Your task to perform on an android device: toggle show notifications on the lock screen Image 0: 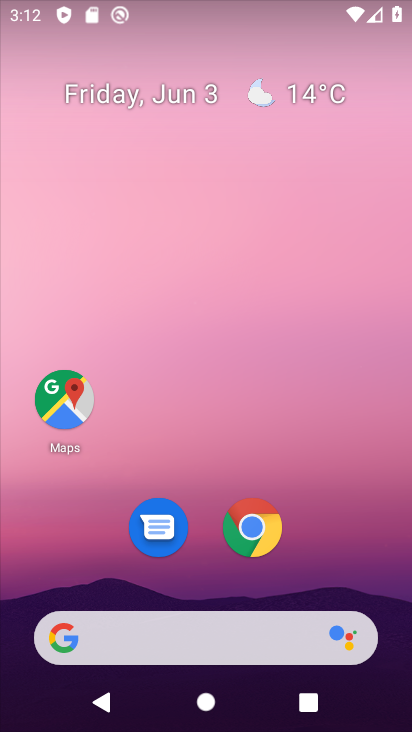
Step 0: click (349, 4)
Your task to perform on an android device: toggle show notifications on the lock screen Image 1: 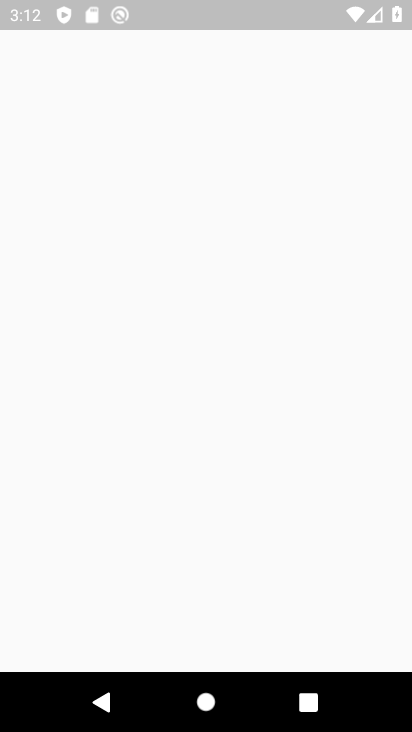
Step 1: press home button
Your task to perform on an android device: toggle show notifications on the lock screen Image 2: 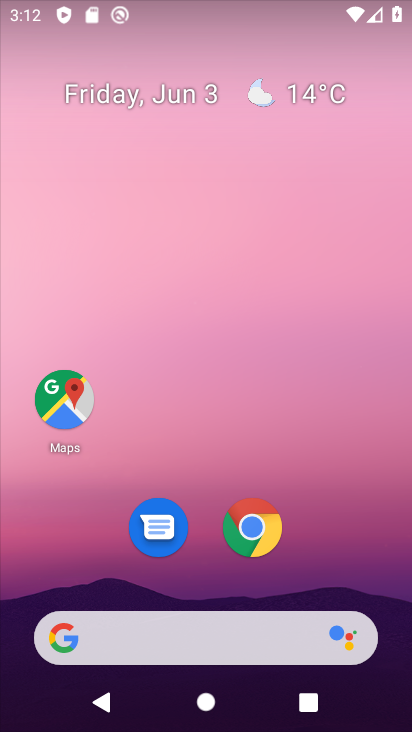
Step 2: drag from (327, 555) to (213, 79)
Your task to perform on an android device: toggle show notifications on the lock screen Image 3: 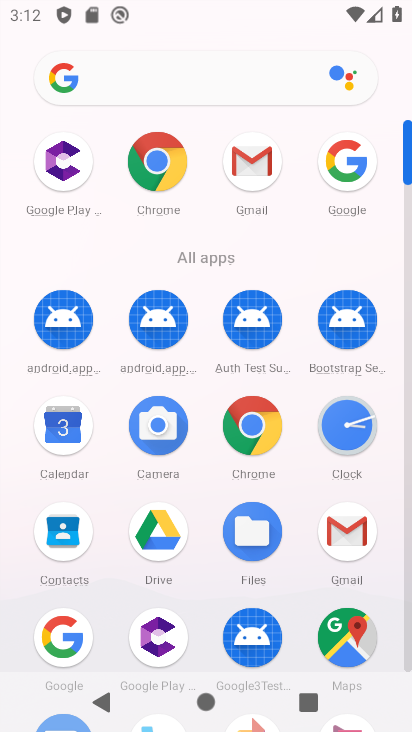
Step 3: drag from (301, 270) to (318, 68)
Your task to perform on an android device: toggle show notifications on the lock screen Image 4: 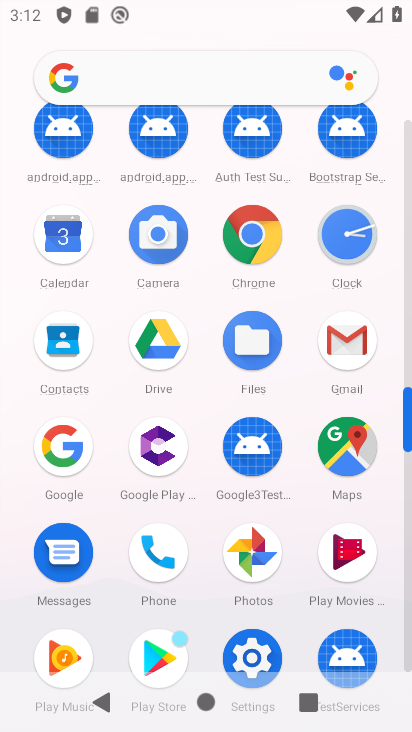
Step 4: click (248, 655)
Your task to perform on an android device: toggle show notifications on the lock screen Image 5: 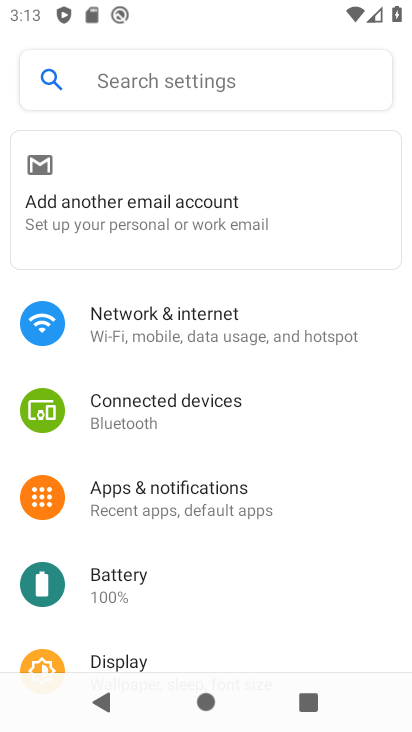
Step 5: click (175, 488)
Your task to perform on an android device: toggle show notifications on the lock screen Image 6: 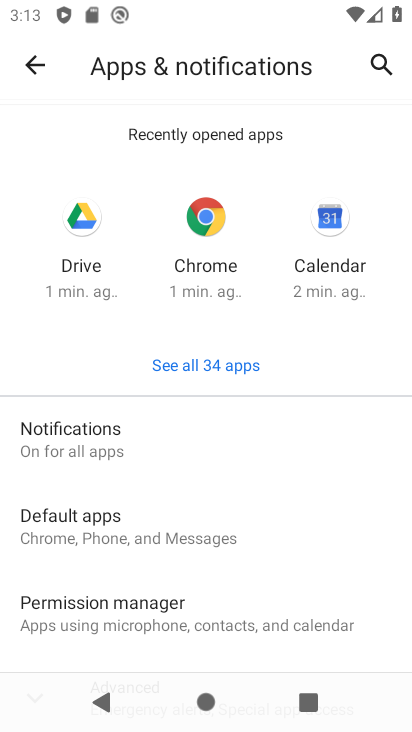
Step 6: click (77, 448)
Your task to perform on an android device: toggle show notifications on the lock screen Image 7: 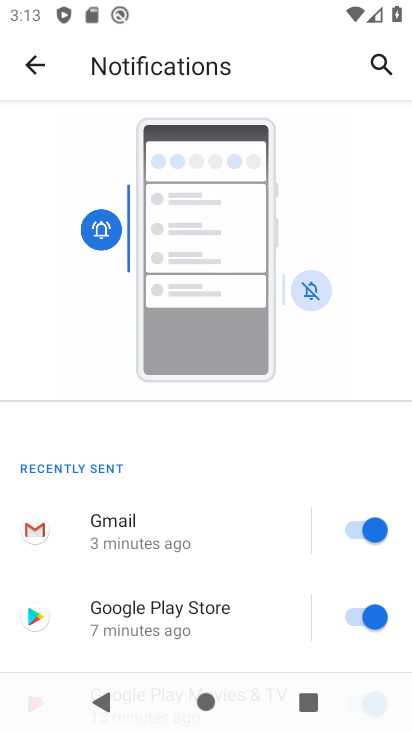
Step 7: drag from (202, 496) to (267, 330)
Your task to perform on an android device: toggle show notifications on the lock screen Image 8: 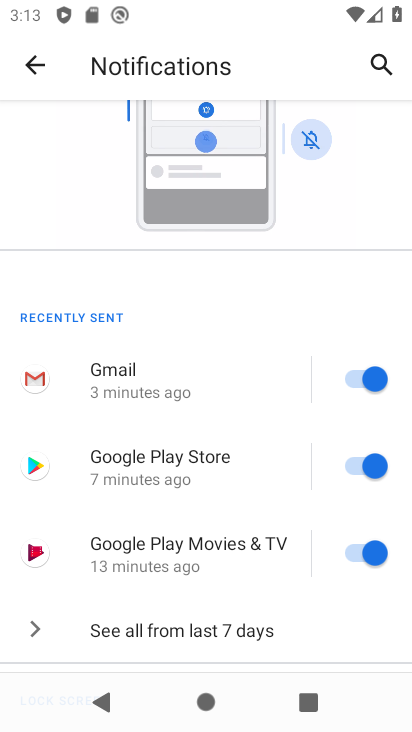
Step 8: drag from (168, 503) to (249, 397)
Your task to perform on an android device: toggle show notifications on the lock screen Image 9: 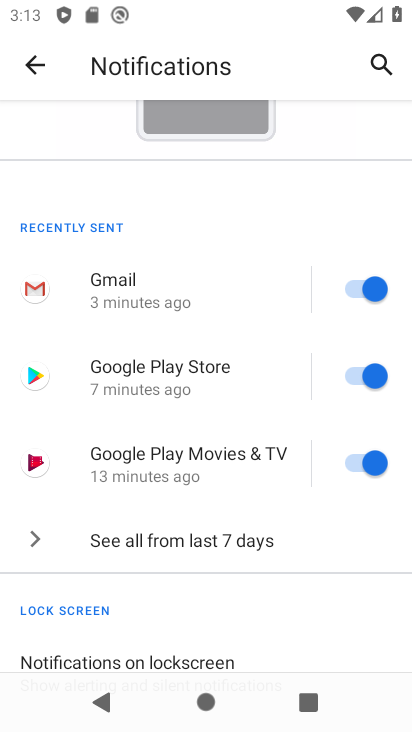
Step 9: drag from (152, 506) to (234, 389)
Your task to perform on an android device: toggle show notifications on the lock screen Image 10: 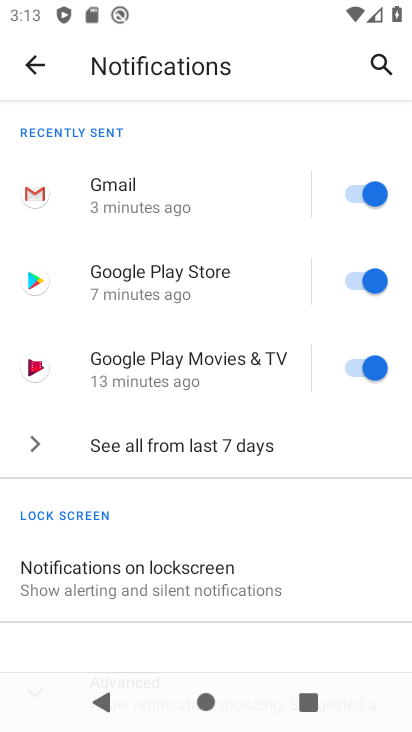
Step 10: click (162, 571)
Your task to perform on an android device: toggle show notifications on the lock screen Image 11: 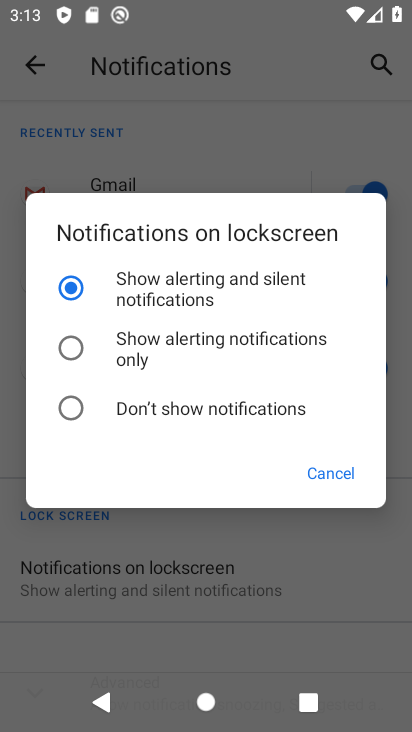
Step 11: click (67, 406)
Your task to perform on an android device: toggle show notifications on the lock screen Image 12: 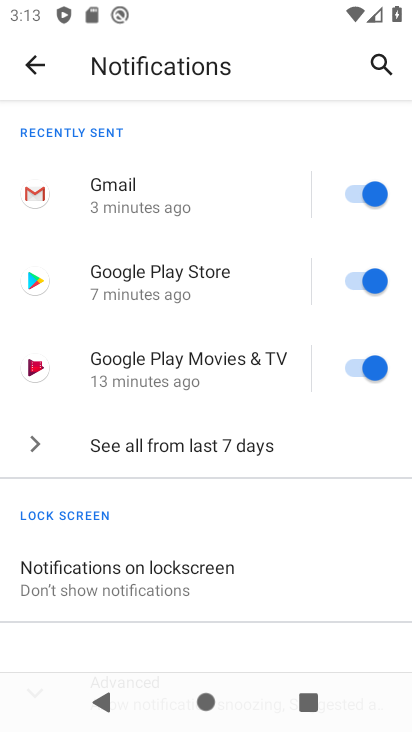
Step 12: task complete